Your task to perform on an android device: turn smart compose on in the gmail app Image 0: 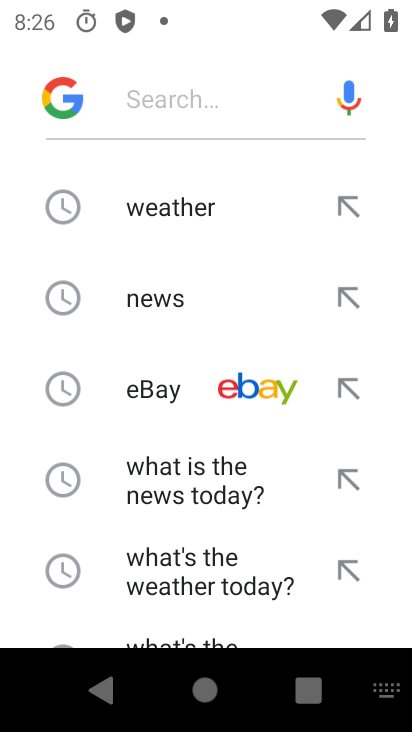
Step 0: press home button
Your task to perform on an android device: turn smart compose on in the gmail app Image 1: 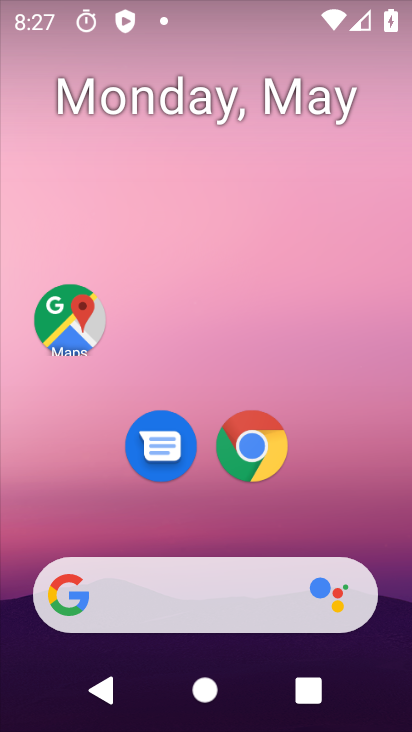
Step 1: drag from (352, 487) to (223, 10)
Your task to perform on an android device: turn smart compose on in the gmail app Image 2: 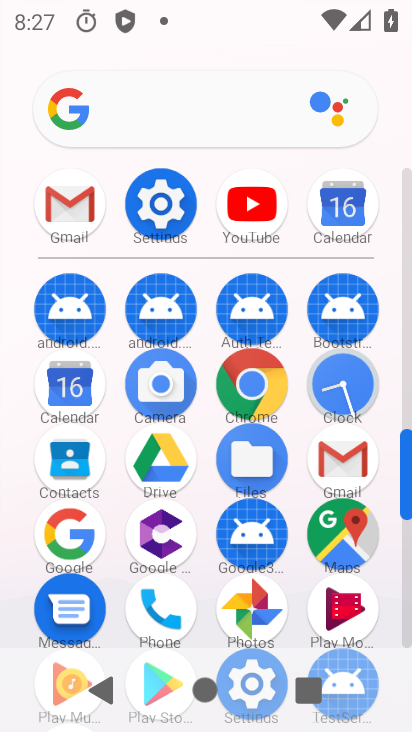
Step 2: click (53, 211)
Your task to perform on an android device: turn smart compose on in the gmail app Image 3: 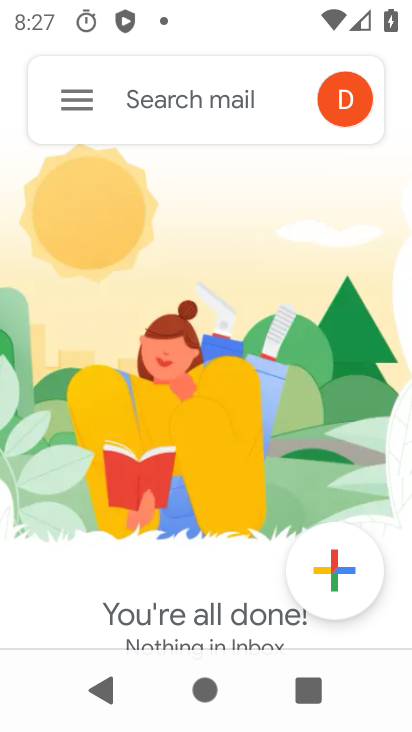
Step 3: click (86, 103)
Your task to perform on an android device: turn smart compose on in the gmail app Image 4: 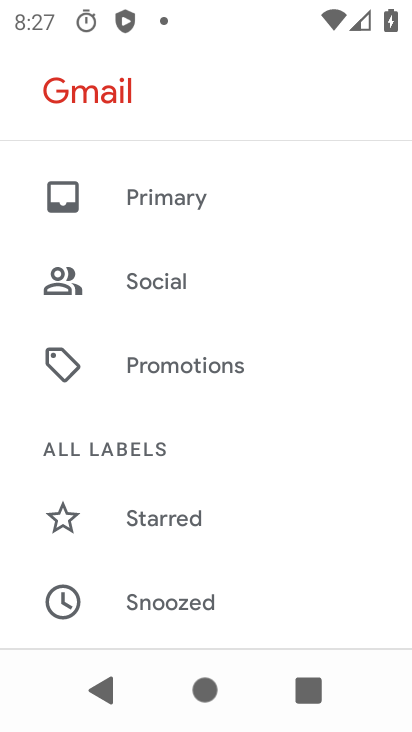
Step 4: drag from (204, 560) to (191, 6)
Your task to perform on an android device: turn smart compose on in the gmail app Image 5: 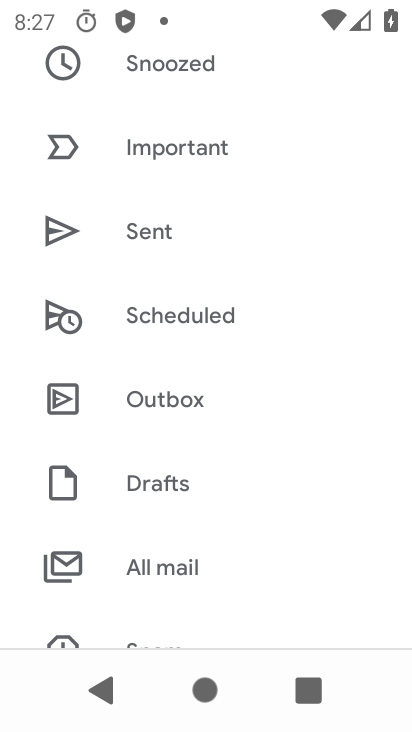
Step 5: drag from (202, 508) to (178, 64)
Your task to perform on an android device: turn smart compose on in the gmail app Image 6: 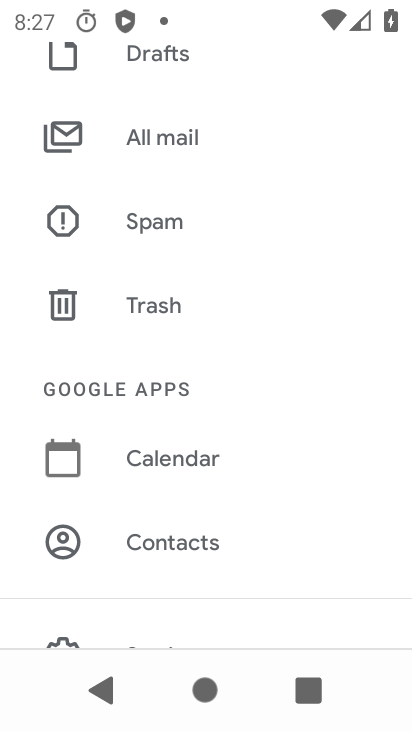
Step 6: drag from (192, 510) to (162, 79)
Your task to perform on an android device: turn smart compose on in the gmail app Image 7: 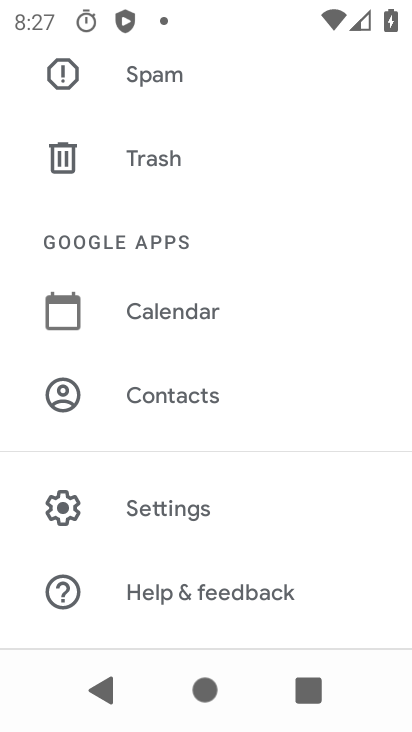
Step 7: click (157, 506)
Your task to perform on an android device: turn smart compose on in the gmail app Image 8: 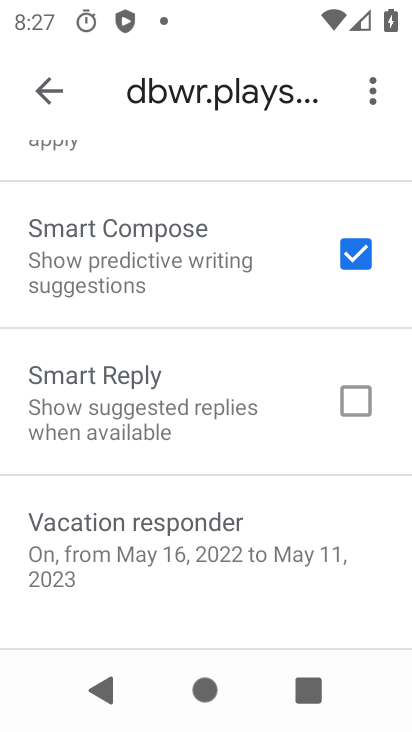
Step 8: task complete